Your task to perform on an android device: Go to Google Image 0: 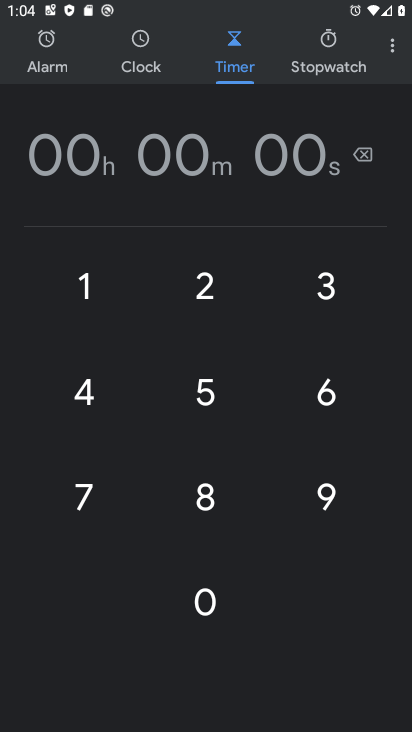
Step 0: press home button
Your task to perform on an android device: Go to Google Image 1: 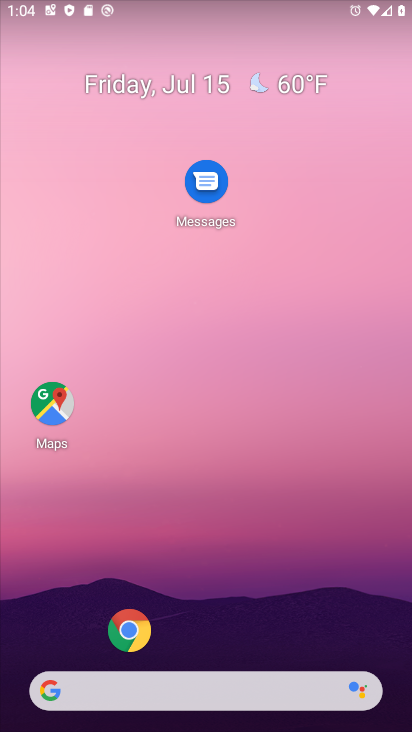
Step 1: click (98, 682)
Your task to perform on an android device: Go to Google Image 2: 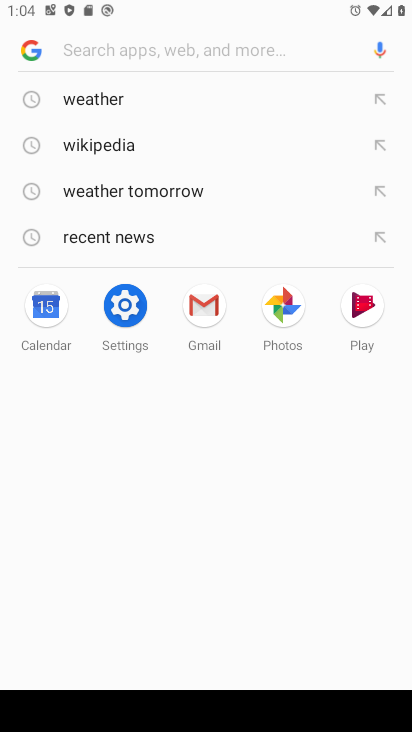
Step 2: task complete